Your task to perform on an android device: Search for Italian restaurants on Maps Image 0: 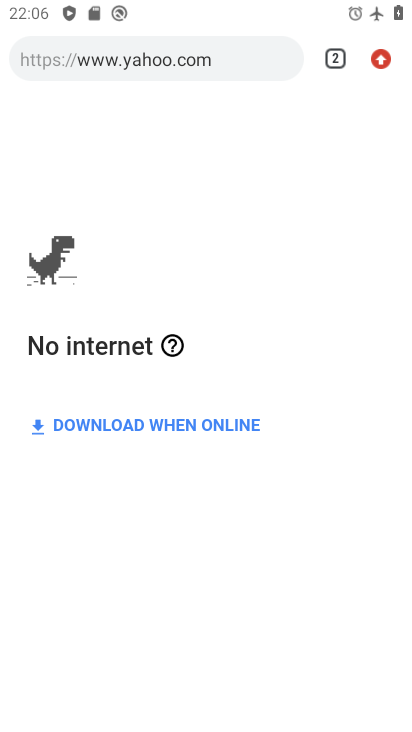
Step 0: press home button
Your task to perform on an android device: Search for Italian restaurants on Maps Image 1: 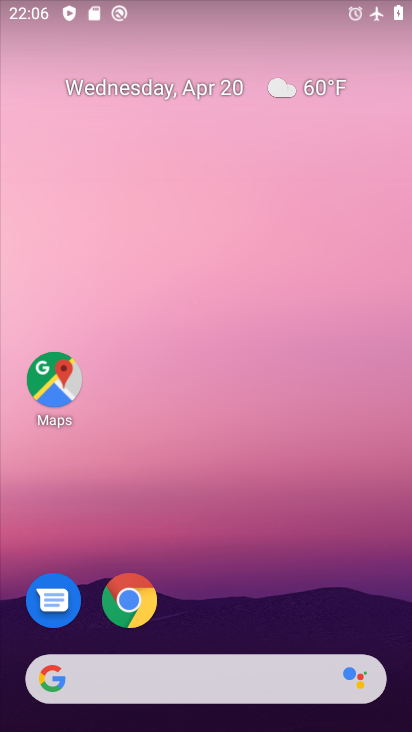
Step 1: drag from (192, 632) to (184, 48)
Your task to perform on an android device: Search for Italian restaurants on Maps Image 2: 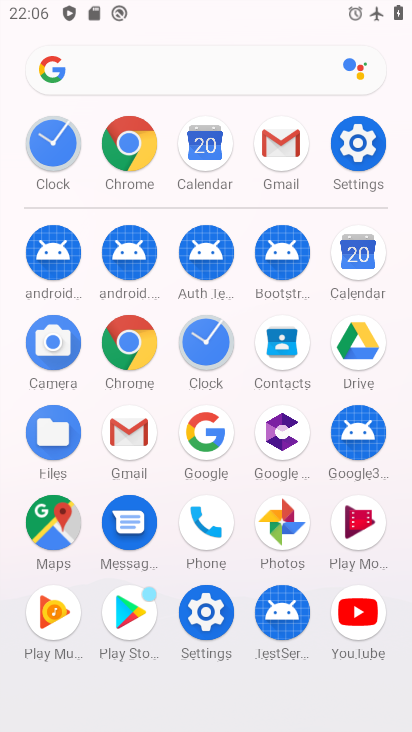
Step 2: click (52, 534)
Your task to perform on an android device: Search for Italian restaurants on Maps Image 3: 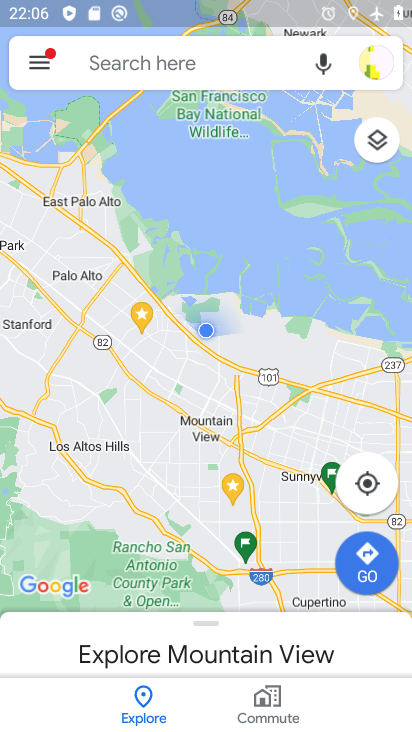
Step 3: click (202, 60)
Your task to perform on an android device: Search for Italian restaurants on Maps Image 4: 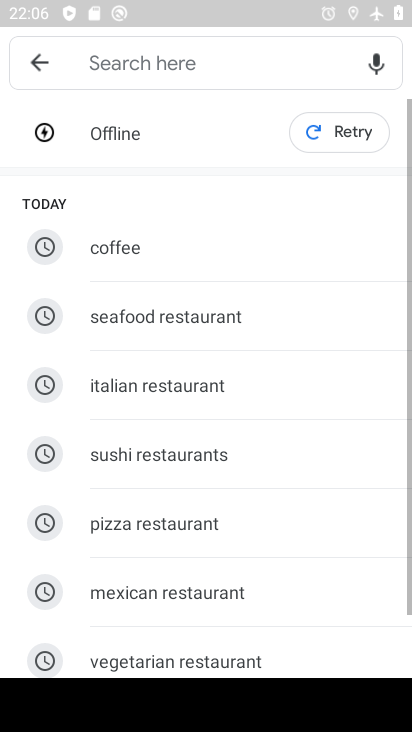
Step 4: click (158, 376)
Your task to perform on an android device: Search for Italian restaurants on Maps Image 5: 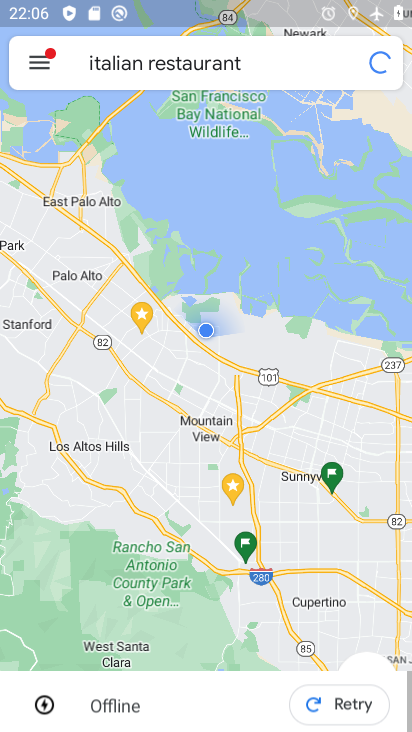
Step 5: task complete